Your task to perform on an android device: toggle show notifications on the lock screen Image 0: 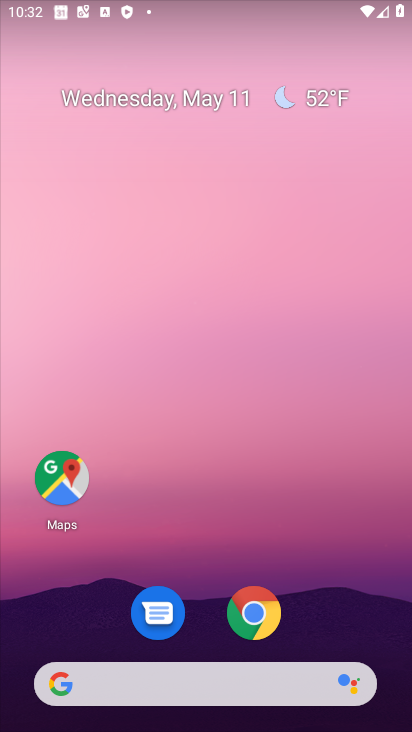
Step 0: drag from (229, 329) to (229, 263)
Your task to perform on an android device: toggle show notifications on the lock screen Image 1: 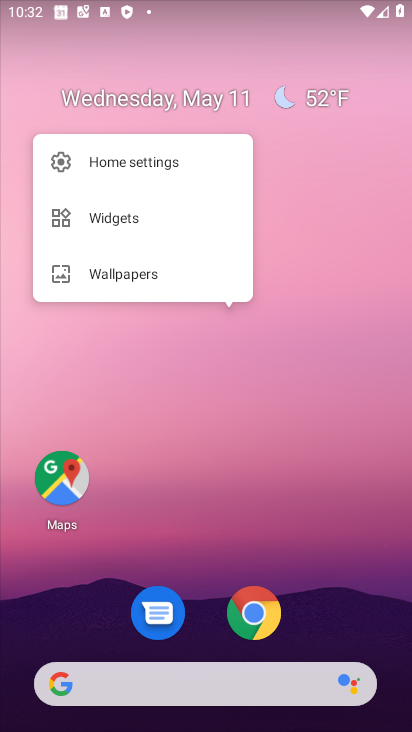
Step 1: drag from (185, 296) to (180, 191)
Your task to perform on an android device: toggle show notifications on the lock screen Image 2: 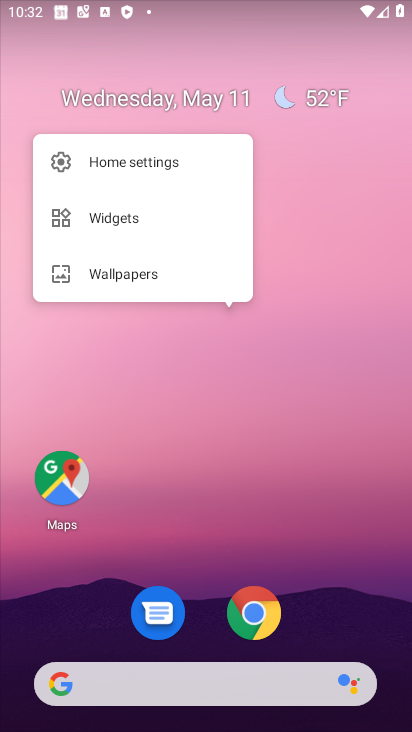
Step 2: click (193, 445)
Your task to perform on an android device: toggle show notifications on the lock screen Image 3: 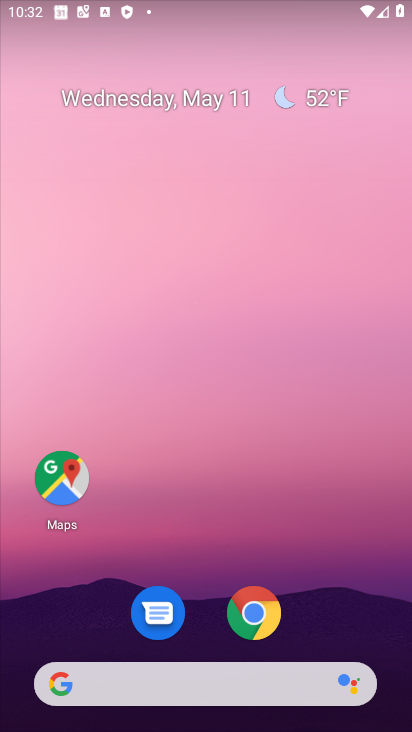
Step 3: click (218, 488)
Your task to perform on an android device: toggle show notifications on the lock screen Image 4: 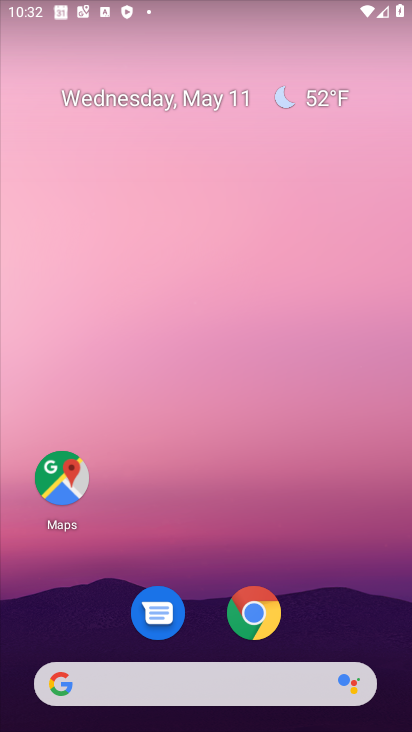
Step 4: drag from (212, 230) to (209, 195)
Your task to perform on an android device: toggle show notifications on the lock screen Image 5: 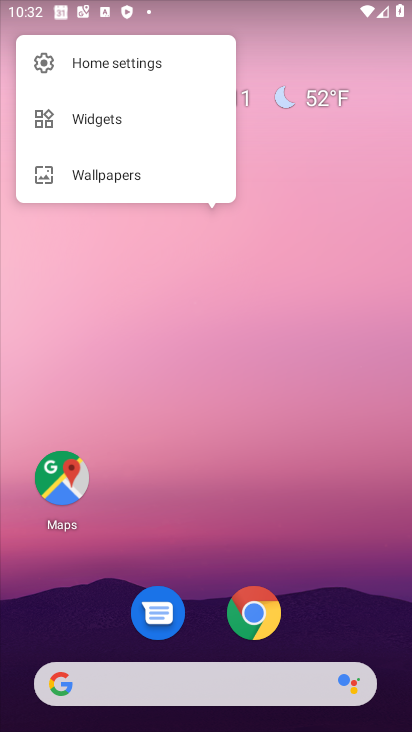
Step 5: click (222, 561)
Your task to perform on an android device: toggle show notifications on the lock screen Image 6: 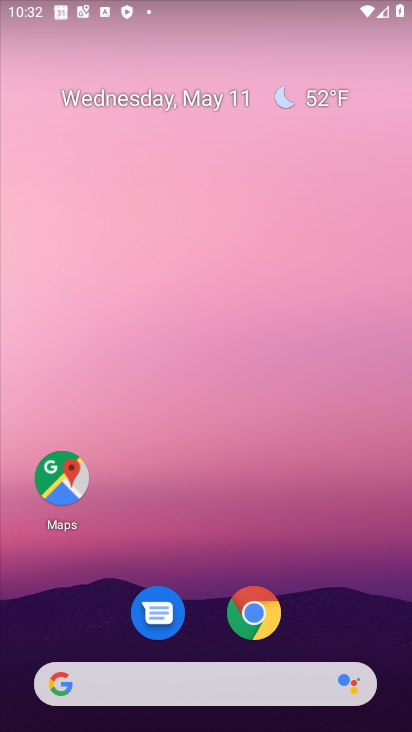
Step 6: drag from (213, 563) to (179, 57)
Your task to perform on an android device: toggle show notifications on the lock screen Image 7: 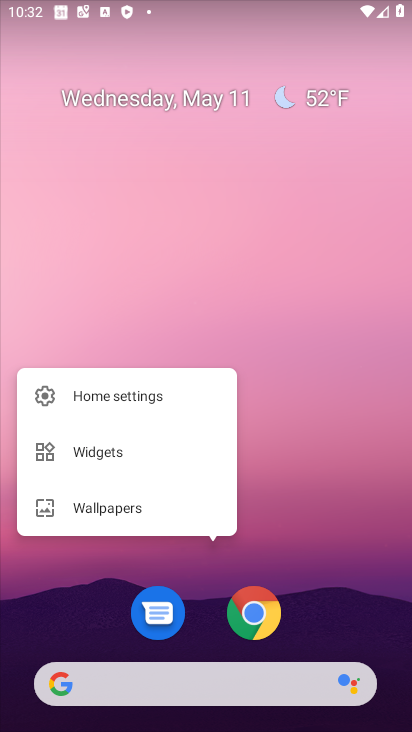
Step 7: click (254, 442)
Your task to perform on an android device: toggle show notifications on the lock screen Image 8: 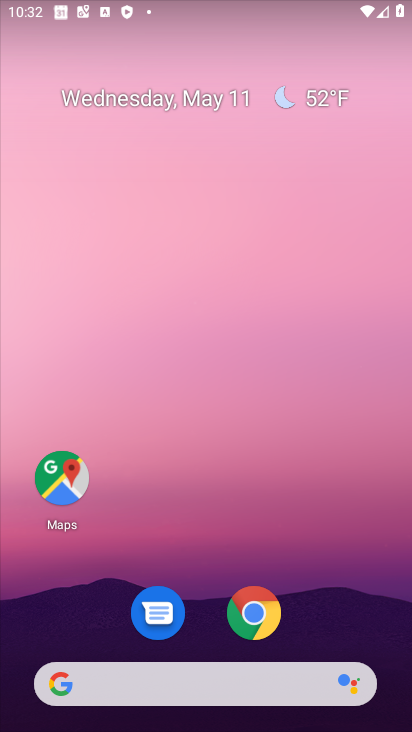
Step 8: drag from (207, 462) to (185, 194)
Your task to perform on an android device: toggle show notifications on the lock screen Image 9: 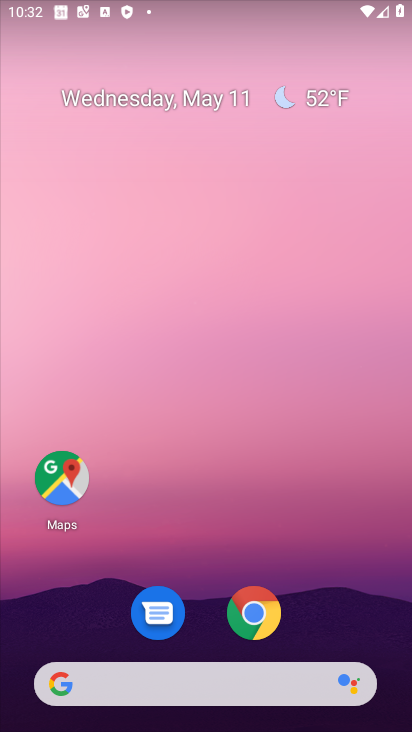
Step 9: drag from (213, 637) to (202, 140)
Your task to perform on an android device: toggle show notifications on the lock screen Image 10: 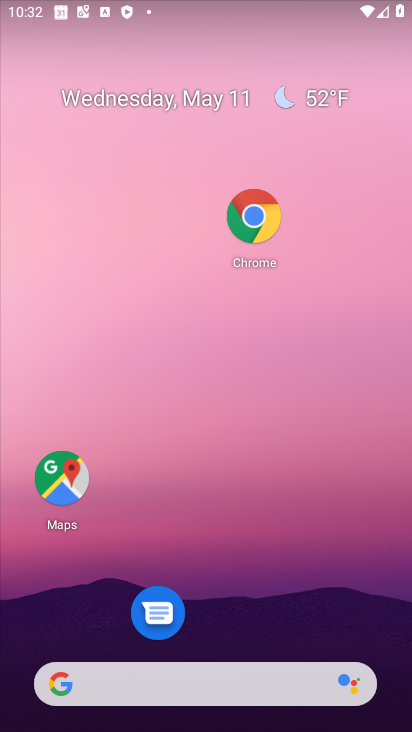
Step 10: click (353, 327)
Your task to perform on an android device: toggle show notifications on the lock screen Image 11: 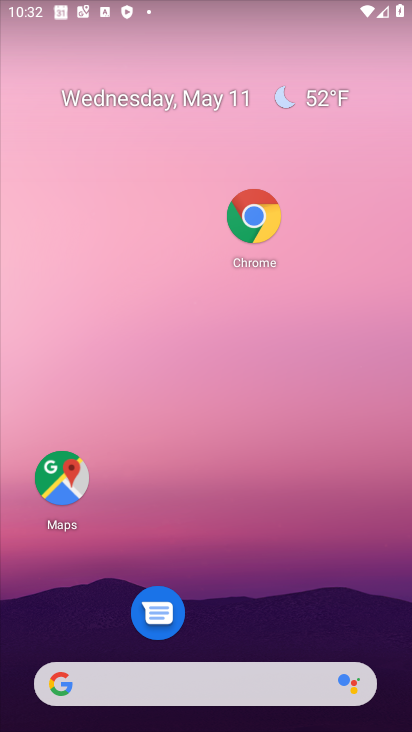
Step 11: drag from (220, 649) to (179, 152)
Your task to perform on an android device: toggle show notifications on the lock screen Image 12: 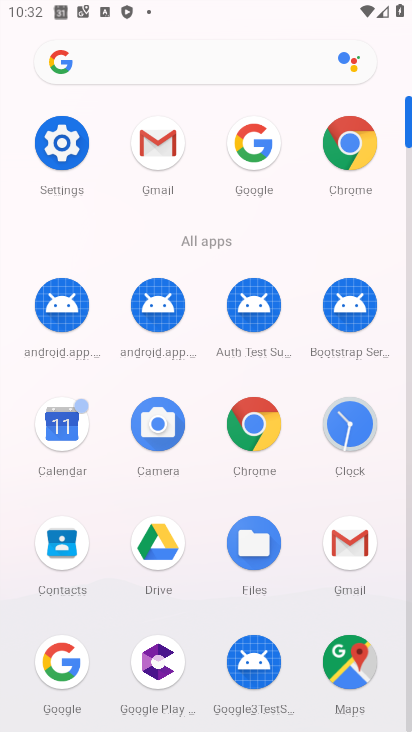
Step 12: click (59, 162)
Your task to perform on an android device: toggle show notifications on the lock screen Image 13: 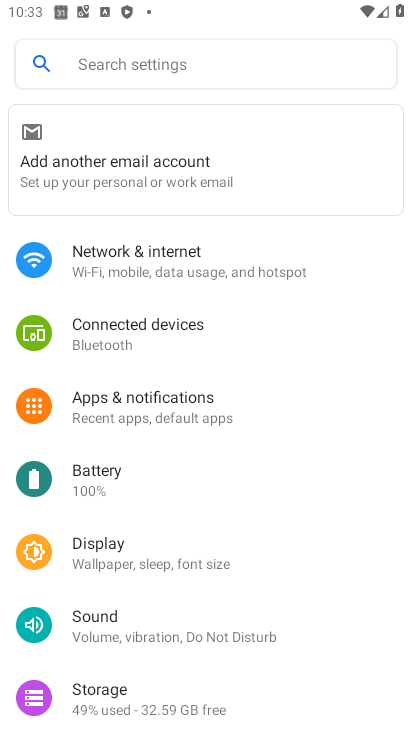
Step 13: drag from (154, 599) to (190, 187)
Your task to perform on an android device: toggle show notifications on the lock screen Image 14: 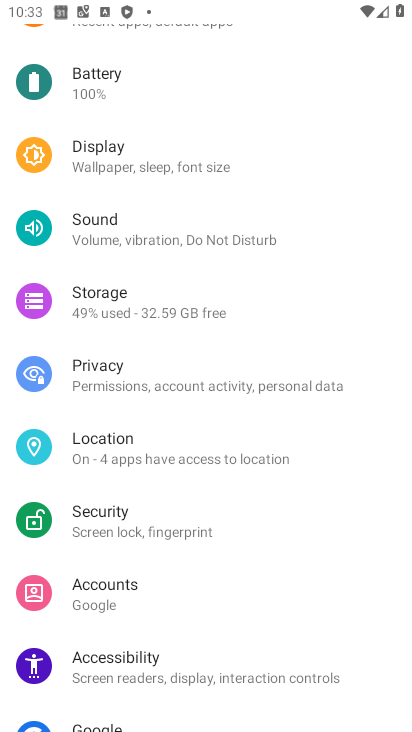
Step 14: drag from (171, 208) to (205, 491)
Your task to perform on an android device: toggle show notifications on the lock screen Image 15: 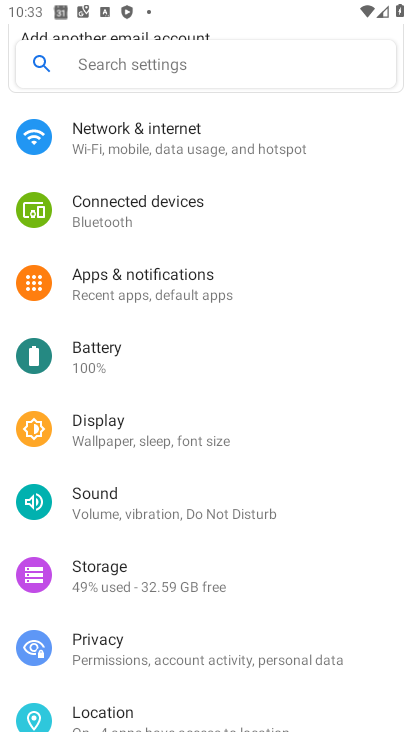
Step 15: drag from (221, 651) to (199, 251)
Your task to perform on an android device: toggle show notifications on the lock screen Image 16: 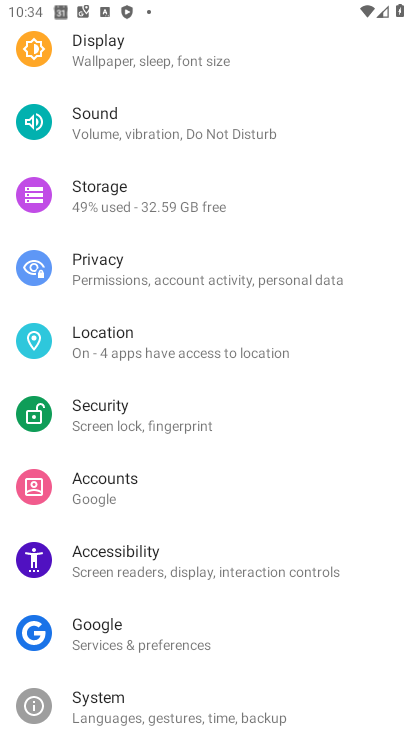
Step 16: drag from (160, 473) to (238, 643)
Your task to perform on an android device: toggle show notifications on the lock screen Image 17: 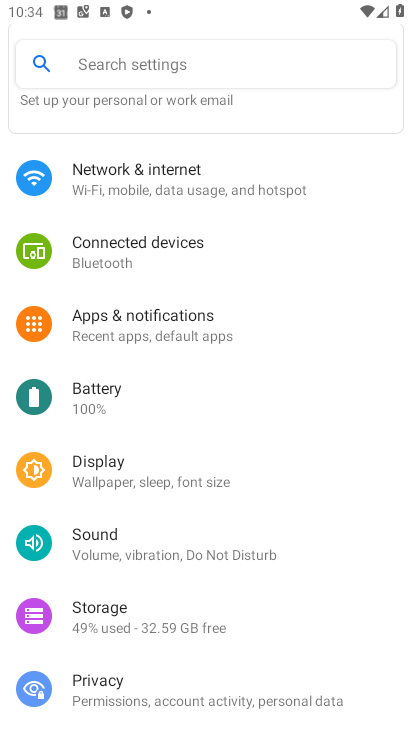
Step 17: click (207, 349)
Your task to perform on an android device: toggle show notifications on the lock screen Image 18: 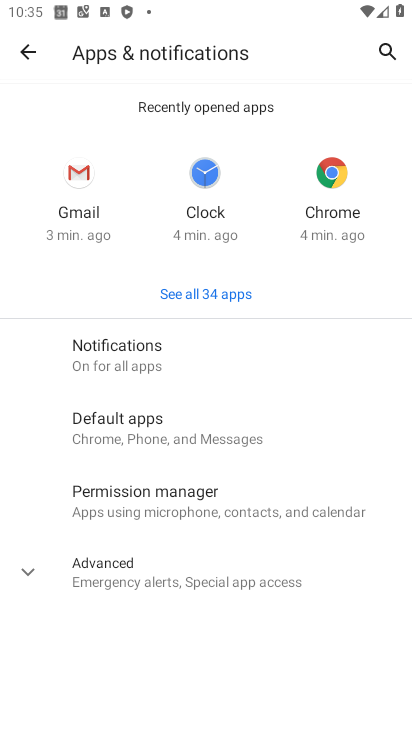
Step 18: click (203, 364)
Your task to perform on an android device: toggle show notifications on the lock screen Image 19: 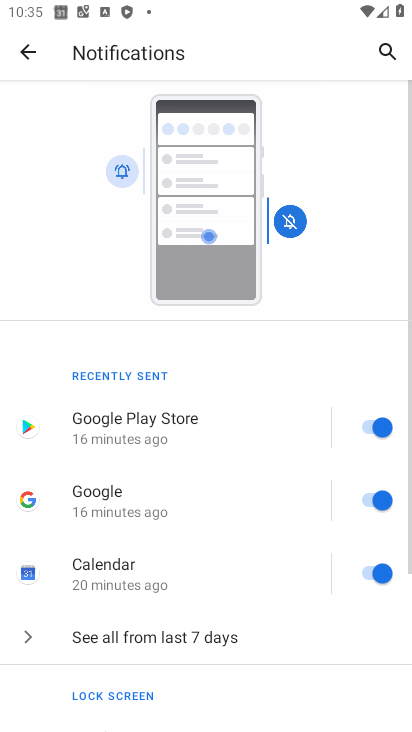
Step 19: drag from (193, 538) to (203, 213)
Your task to perform on an android device: toggle show notifications on the lock screen Image 20: 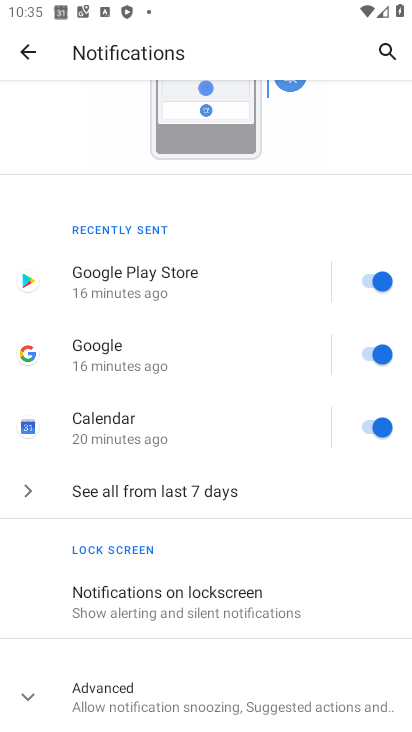
Step 20: click (219, 613)
Your task to perform on an android device: toggle show notifications on the lock screen Image 21: 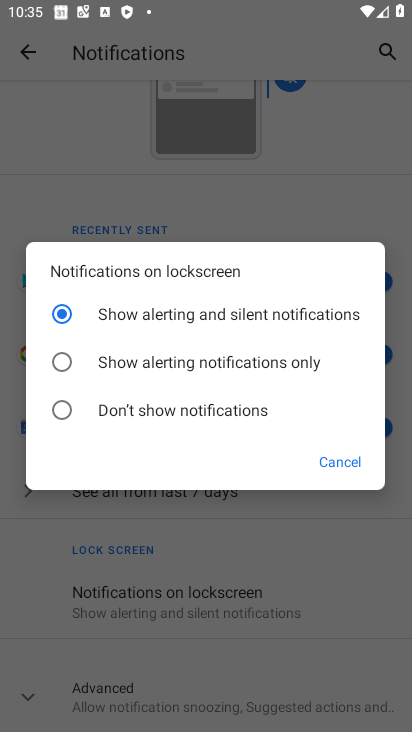
Step 21: click (198, 415)
Your task to perform on an android device: toggle show notifications on the lock screen Image 22: 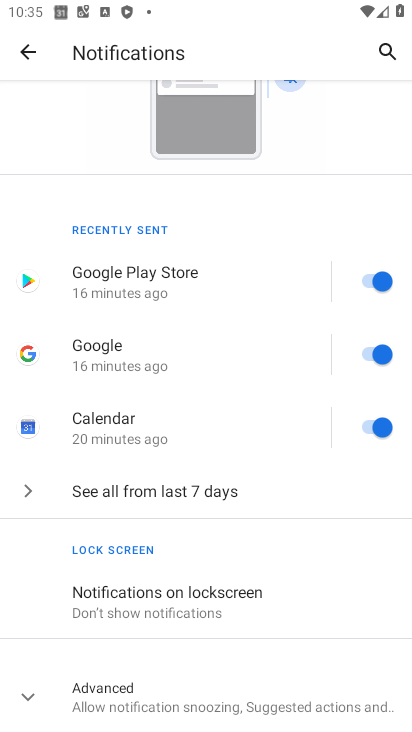
Step 22: task complete